Your task to perform on an android device: Search for a 3D printer on aliexpress. Image 0: 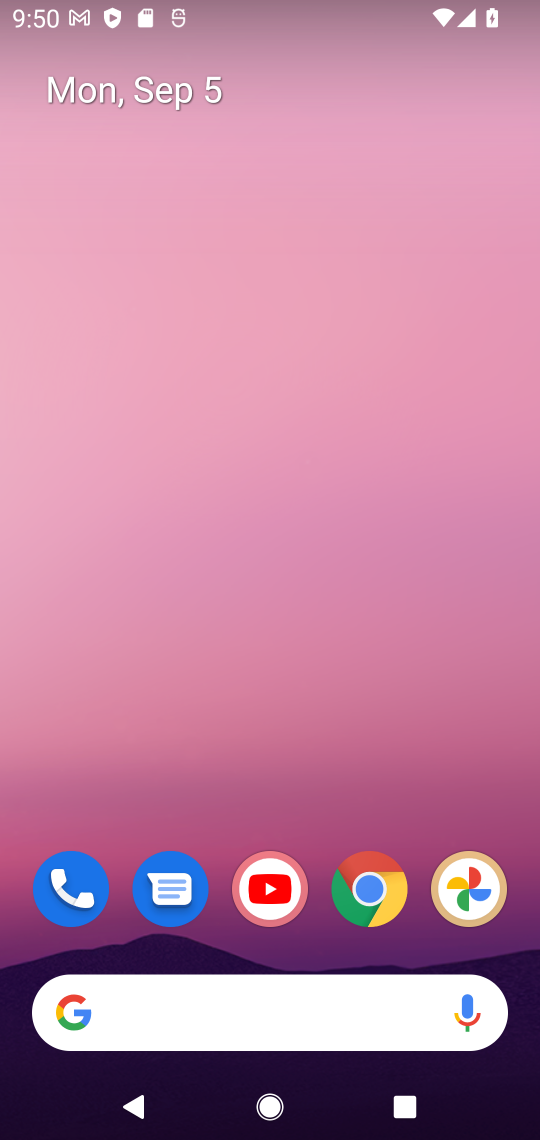
Step 0: click (530, 1069)
Your task to perform on an android device: Search for a 3D printer on aliexpress. Image 1: 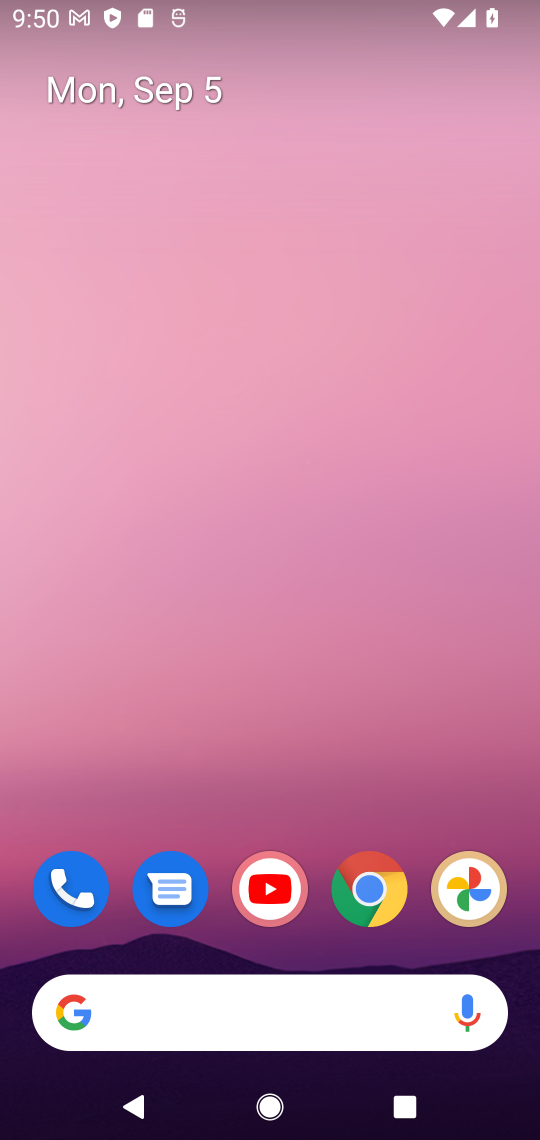
Step 1: click (260, 1003)
Your task to perform on an android device: Search for a 3D printer on aliexpress. Image 2: 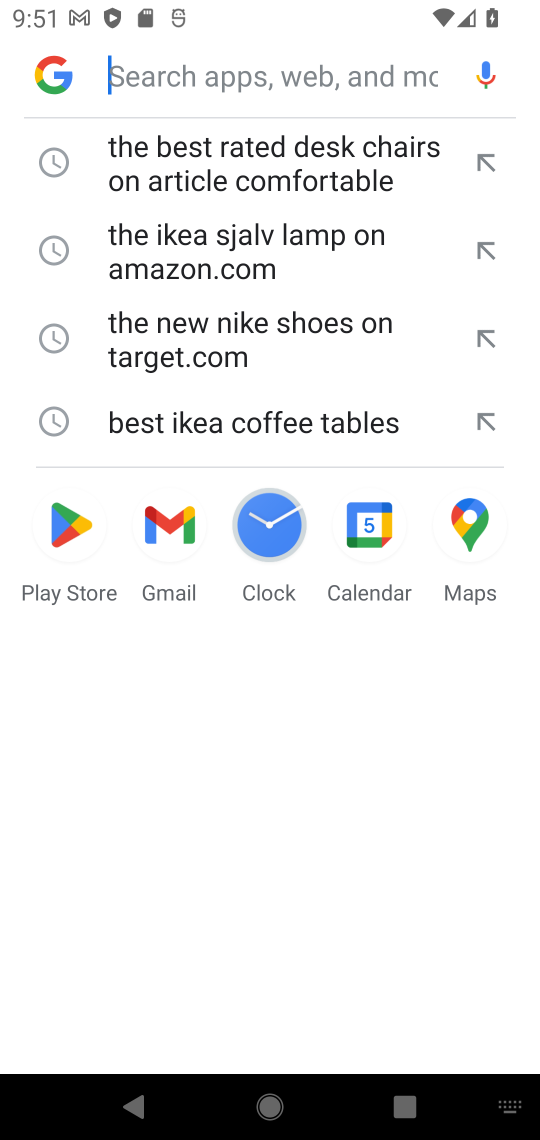
Step 2: type "3D printer on aliexpress."
Your task to perform on an android device: Search for a 3D printer on aliexpress. Image 3: 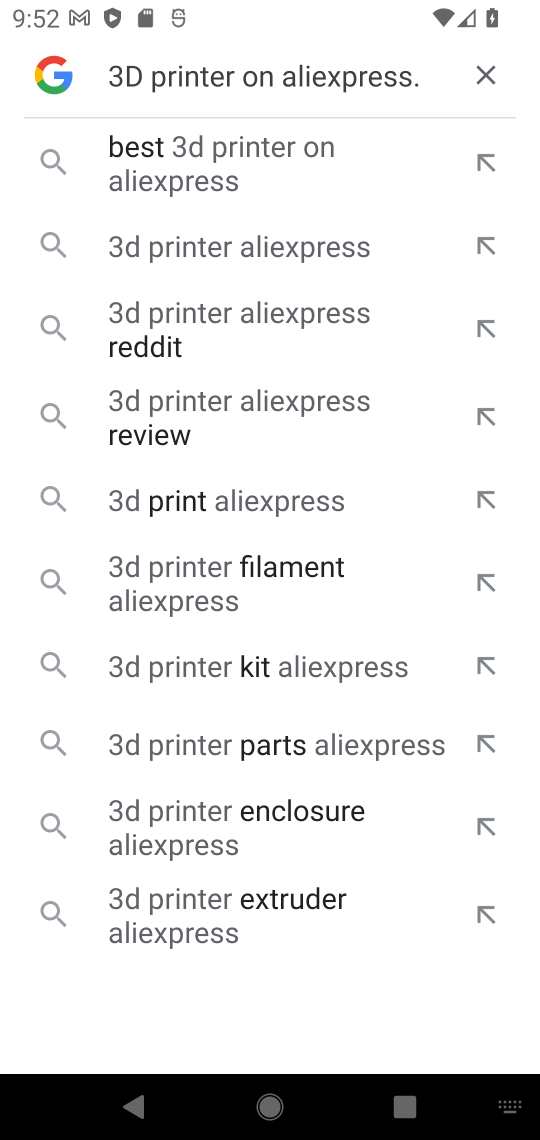
Step 3: click (293, 156)
Your task to perform on an android device: Search for a 3D printer on aliexpress. Image 4: 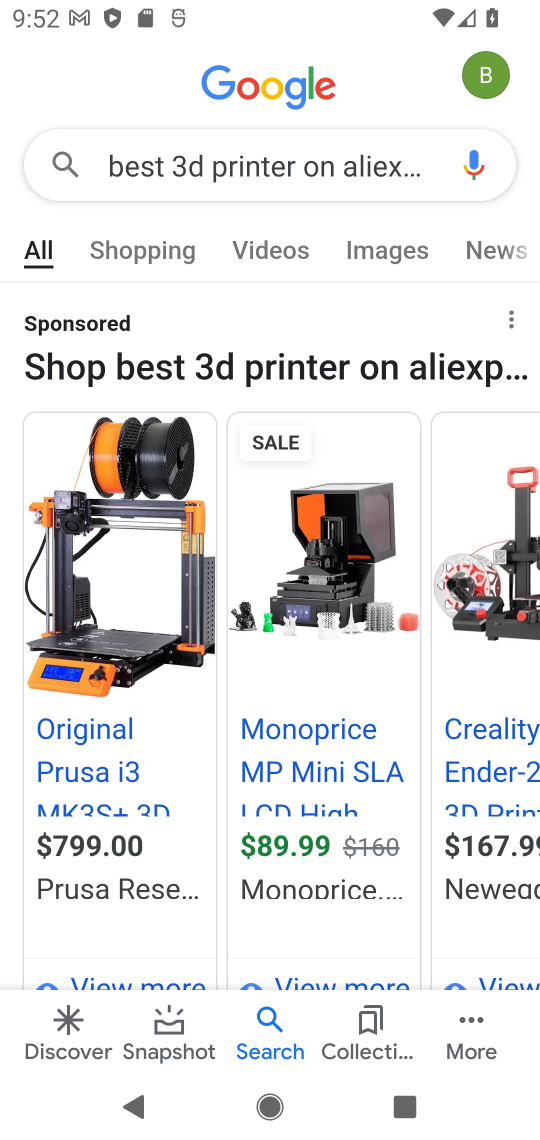
Step 4: task complete